Your task to perform on an android device: open app "Gmail" Image 0: 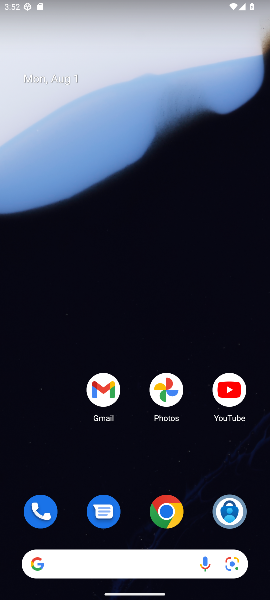
Step 0: drag from (121, 472) to (115, 195)
Your task to perform on an android device: open app "Gmail" Image 1: 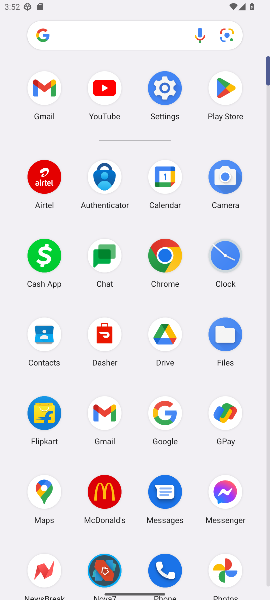
Step 1: click (32, 99)
Your task to perform on an android device: open app "Gmail" Image 2: 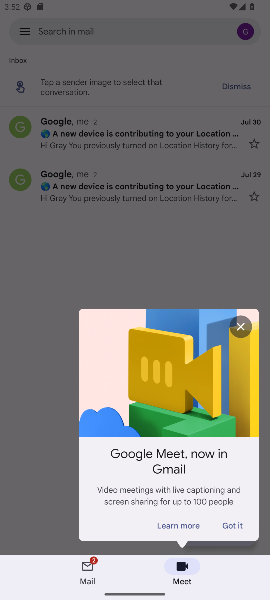
Step 2: task complete